Your task to perform on an android device: Go to Amazon Image 0: 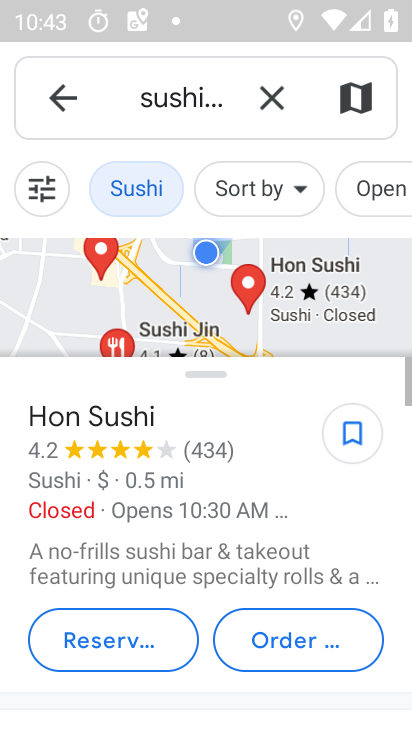
Step 0: press home button
Your task to perform on an android device: Go to Amazon Image 1: 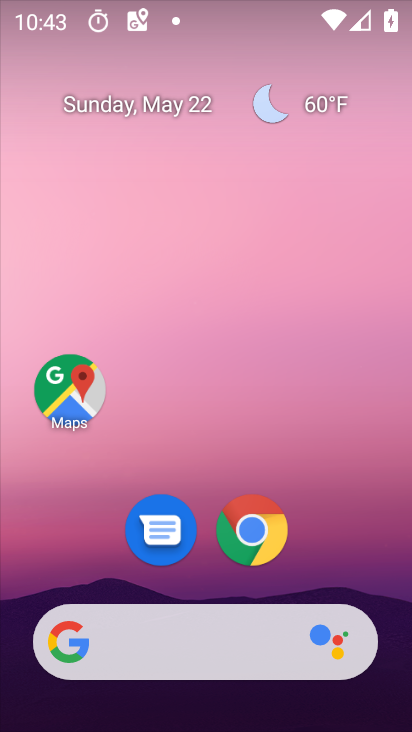
Step 1: click (261, 525)
Your task to perform on an android device: Go to Amazon Image 2: 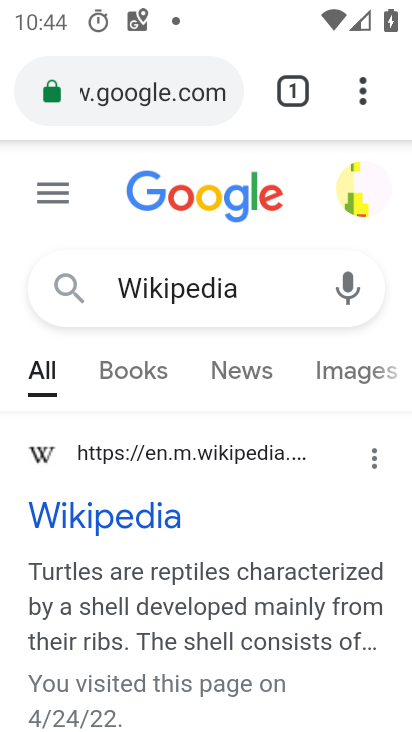
Step 2: click (218, 84)
Your task to perform on an android device: Go to Amazon Image 3: 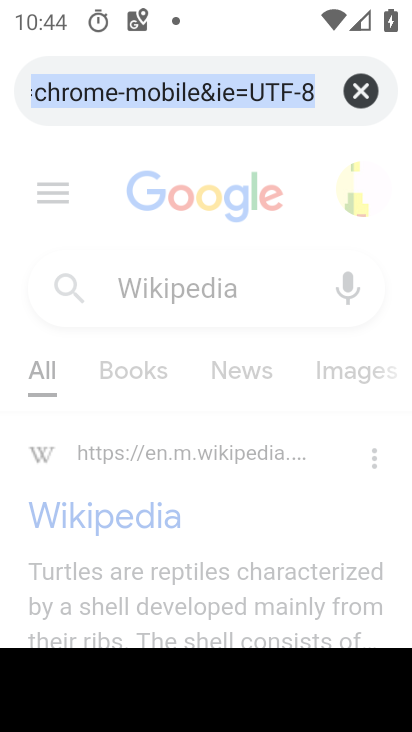
Step 3: click (340, 86)
Your task to perform on an android device: Go to Amazon Image 4: 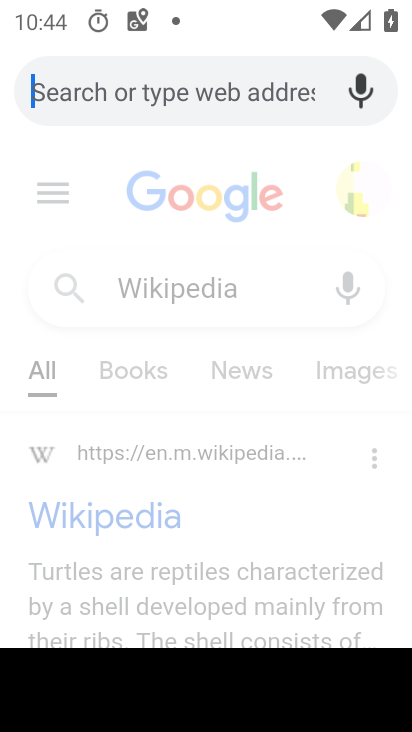
Step 4: type " Amazon"
Your task to perform on an android device: Go to Amazon Image 5: 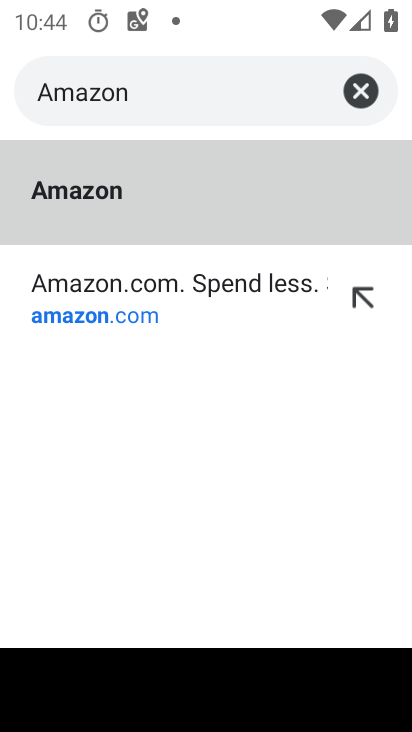
Step 5: click (97, 195)
Your task to perform on an android device: Go to Amazon Image 6: 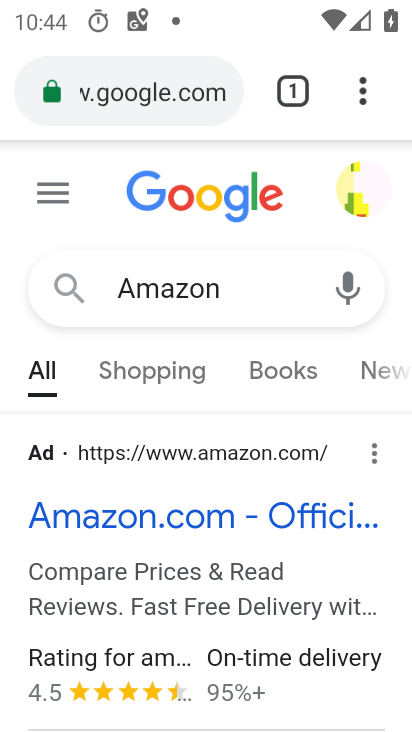
Step 6: task complete